Your task to perform on an android device: allow cookies in the chrome app Image 0: 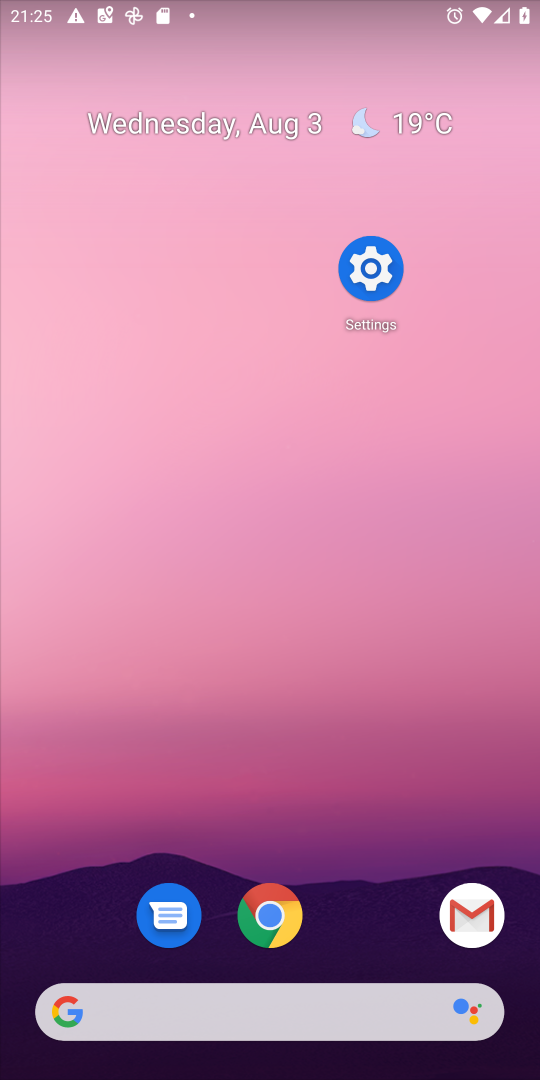
Step 0: press home button
Your task to perform on an android device: allow cookies in the chrome app Image 1: 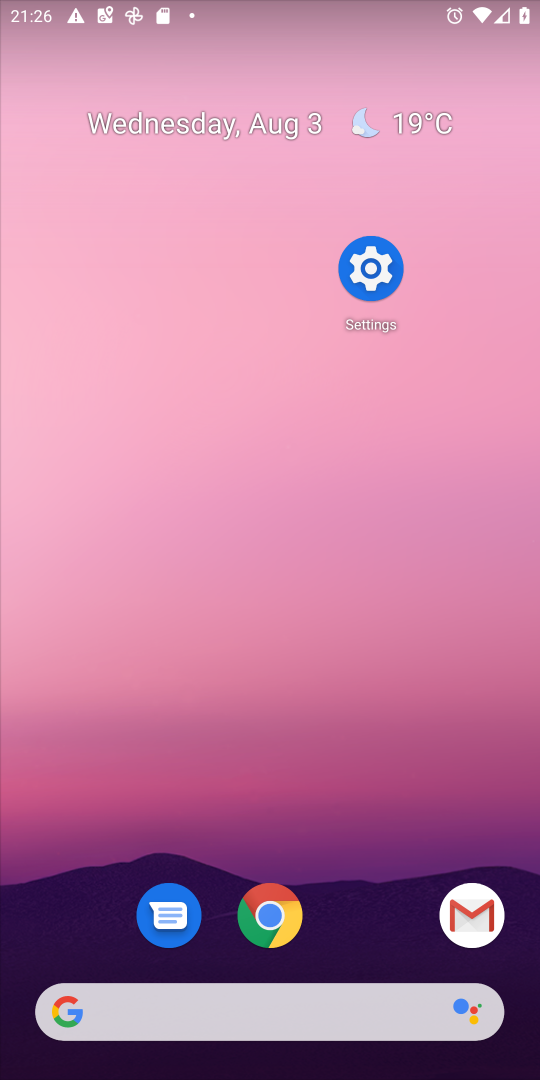
Step 1: drag from (355, 1042) to (113, 212)
Your task to perform on an android device: allow cookies in the chrome app Image 2: 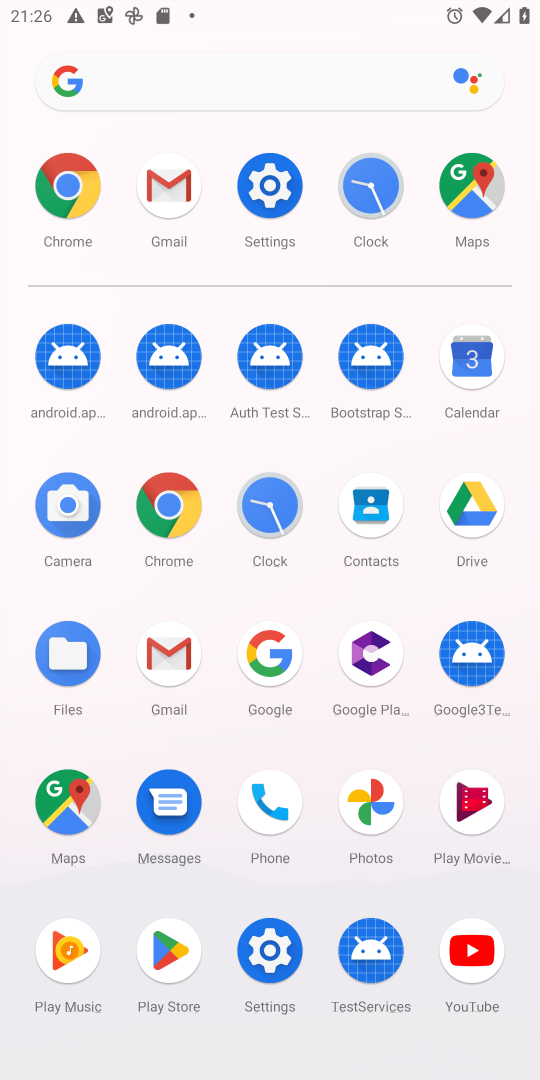
Step 2: click (67, 197)
Your task to perform on an android device: allow cookies in the chrome app Image 3: 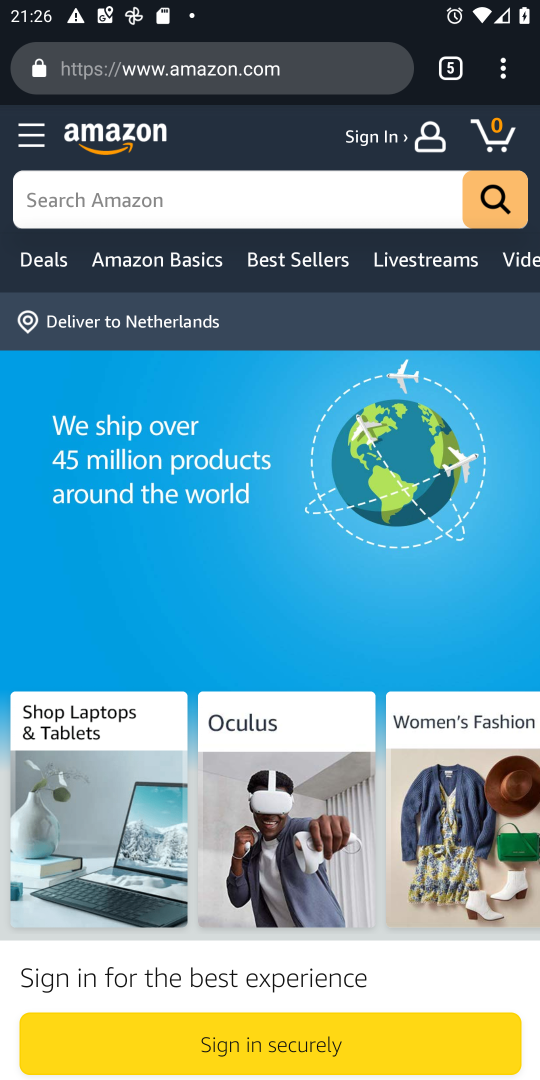
Step 3: click (503, 90)
Your task to perform on an android device: allow cookies in the chrome app Image 4: 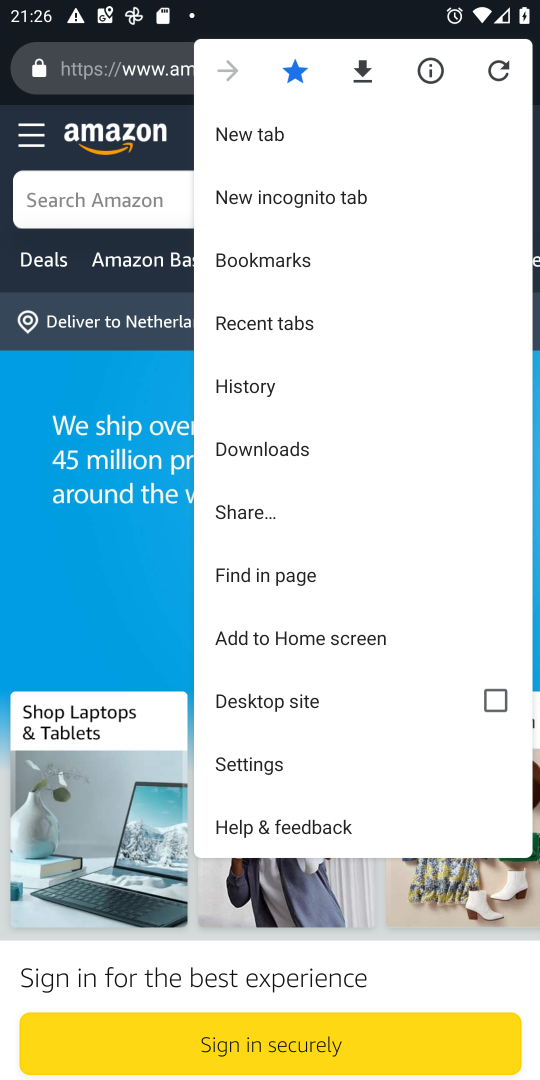
Step 4: click (292, 767)
Your task to perform on an android device: allow cookies in the chrome app Image 5: 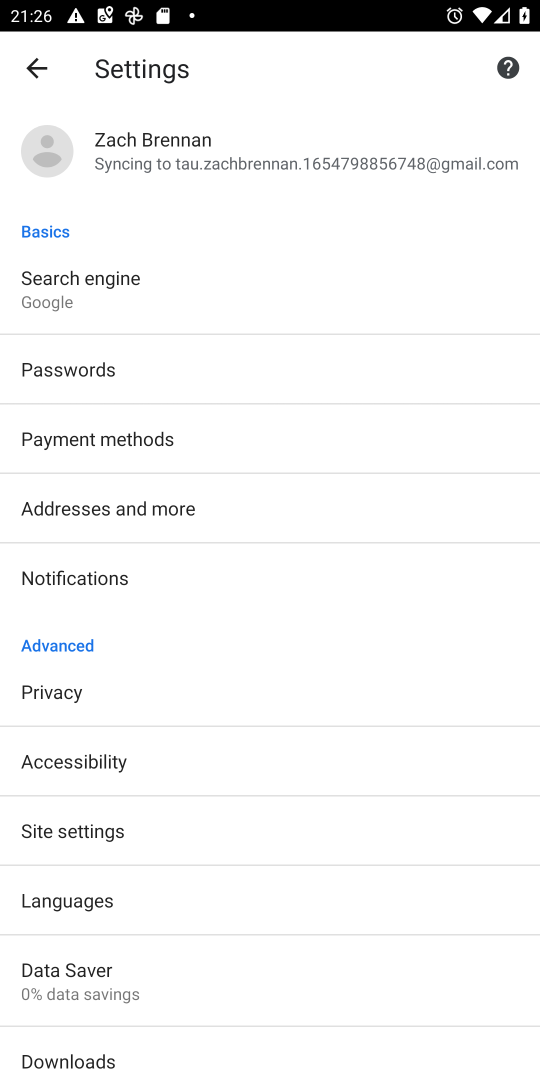
Step 5: click (102, 829)
Your task to perform on an android device: allow cookies in the chrome app Image 6: 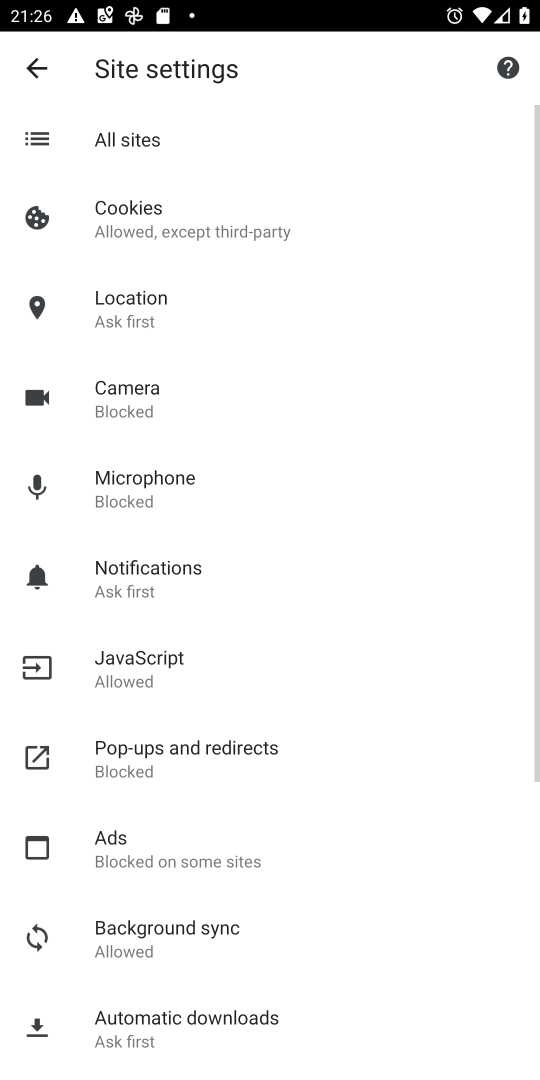
Step 6: click (143, 222)
Your task to perform on an android device: allow cookies in the chrome app Image 7: 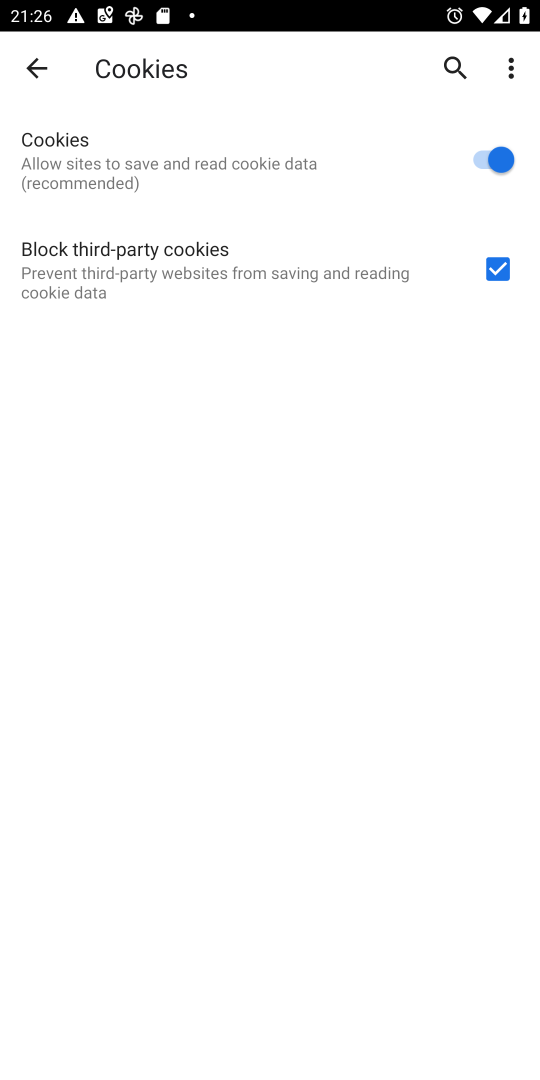
Step 7: click (467, 174)
Your task to perform on an android device: allow cookies in the chrome app Image 8: 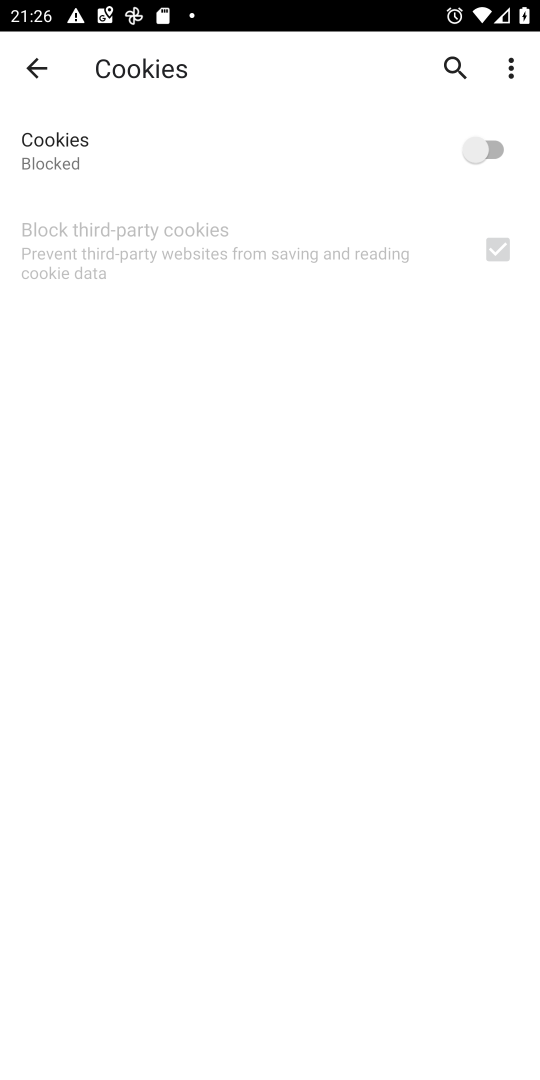
Step 8: click (469, 172)
Your task to perform on an android device: allow cookies in the chrome app Image 9: 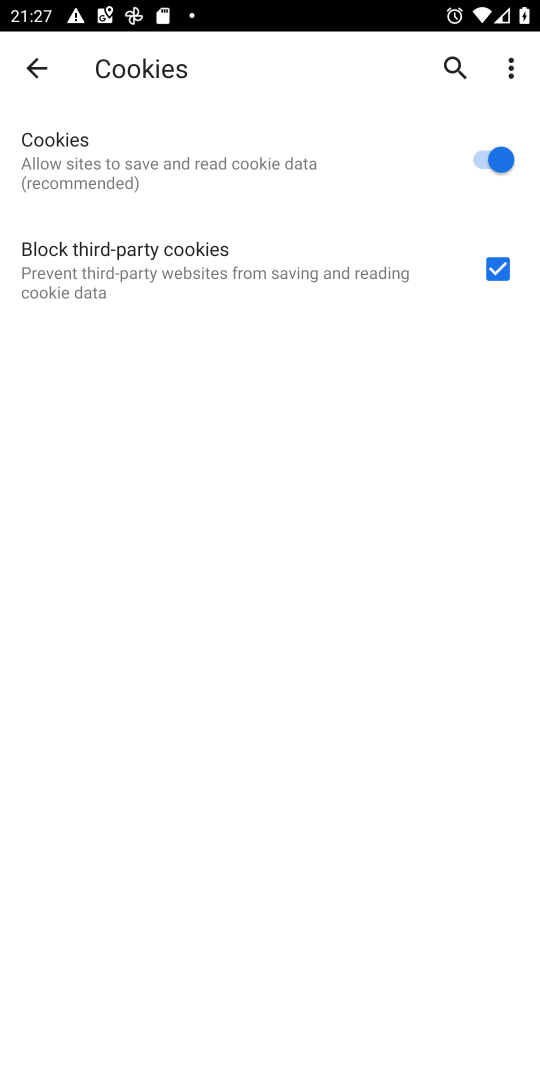
Step 9: task complete